Your task to perform on an android device: Go to display settings Image 0: 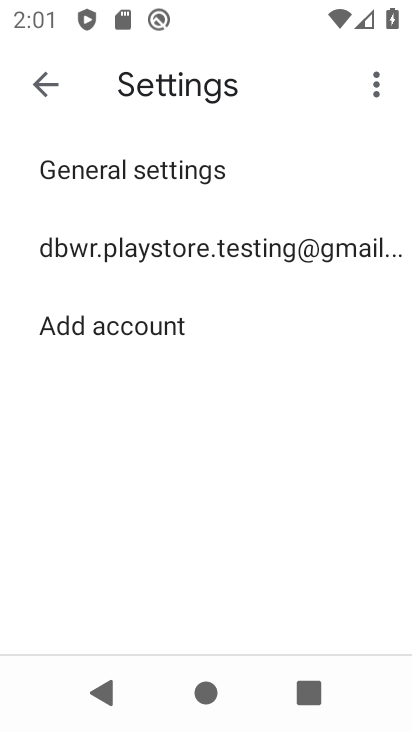
Step 0: press home button
Your task to perform on an android device: Go to display settings Image 1: 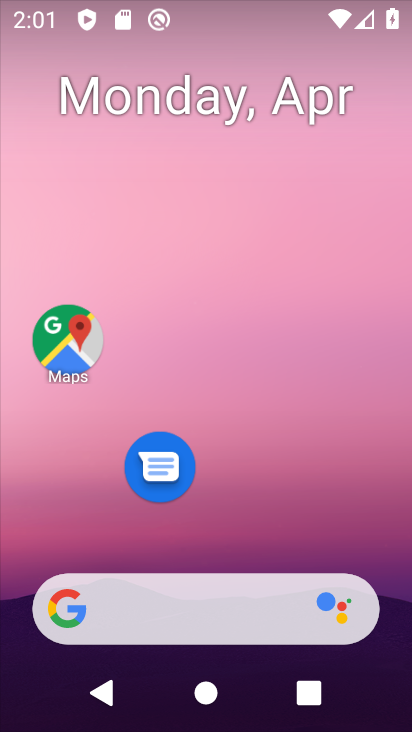
Step 1: drag from (269, 510) to (297, 149)
Your task to perform on an android device: Go to display settings Image 2: 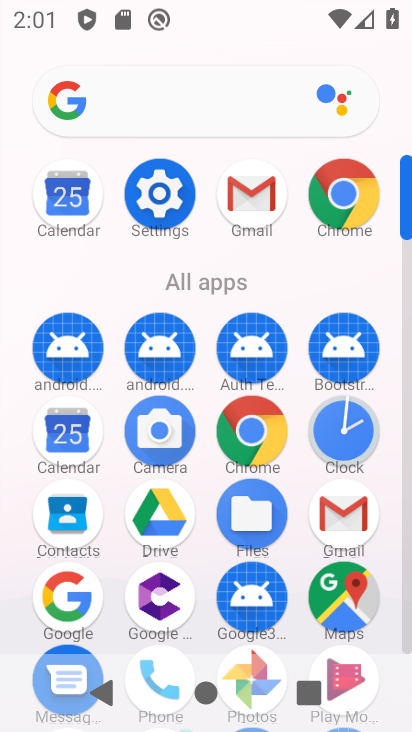
Step 2: click (154, 200)
Your task to perform on an android device: Go to display settings Image 3: 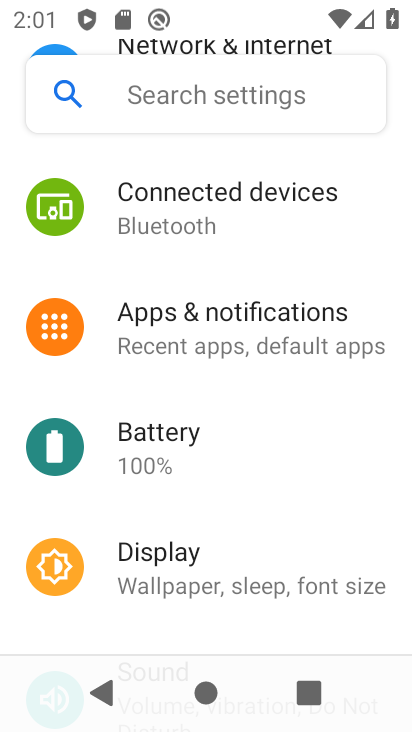
Step 3: click (241, 563)
Your task to perform on an android device: Go to display settings Image 4: 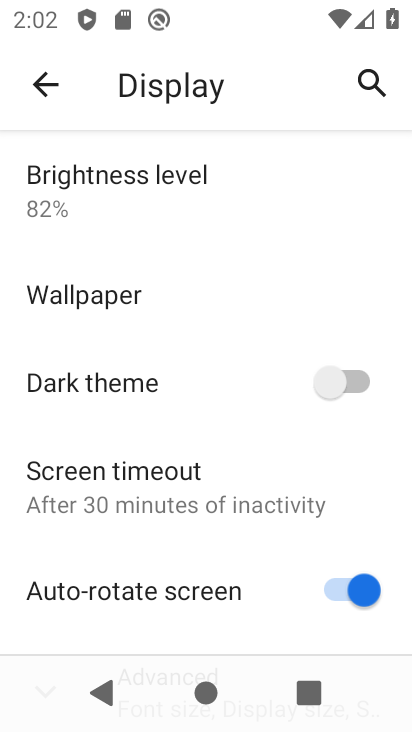
Step 4: task complete